Your task to perform on an android device: Go to Google Image 0: 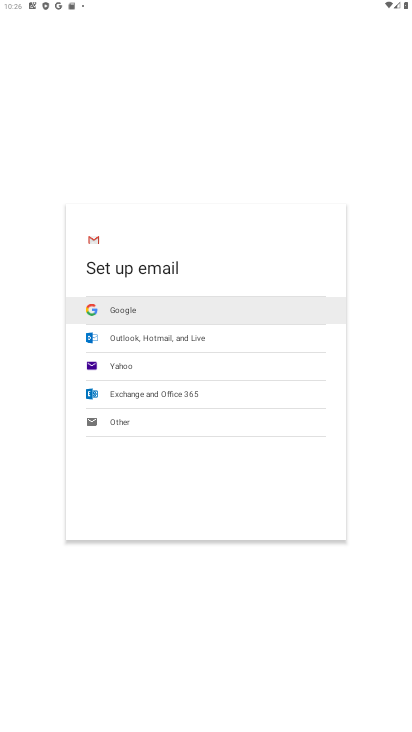
Step 0: press home button
Your task to perform on an android device: Go to Google Image 1: 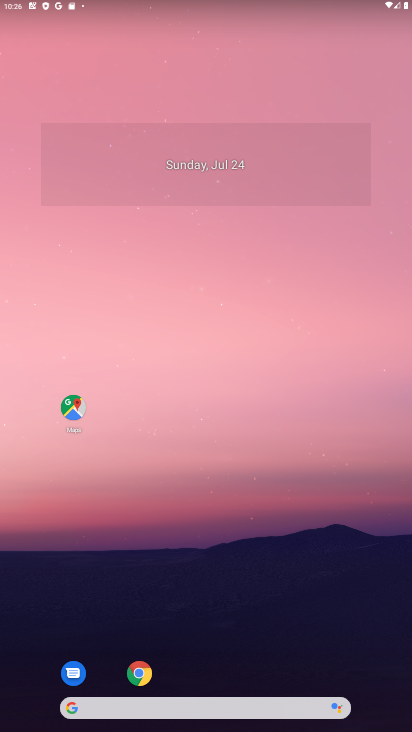
Step 1: click (96, 696)
Your task to perform on an android device: Go to Google Image 2: 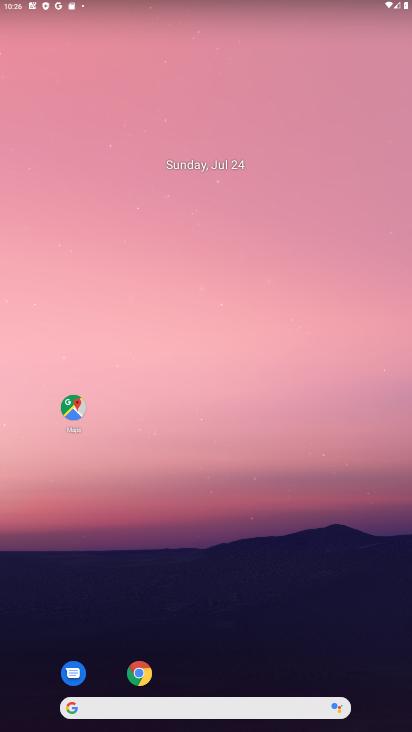
Step 2: click (96, 709)
Your task to perform on an android device: Go to Google Image 3: 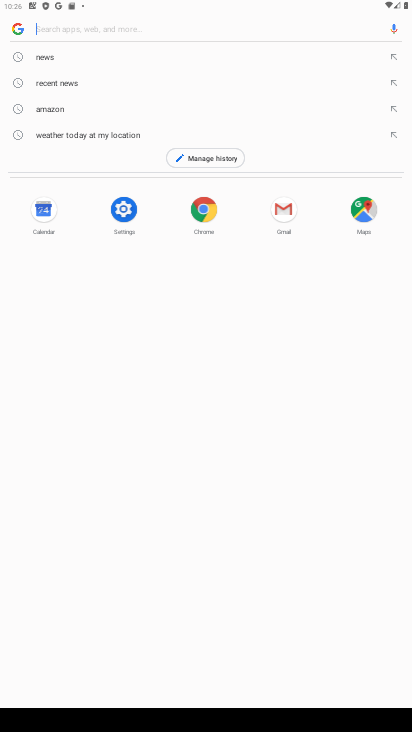
Step 3: task complete